Your task to perform on an android device: Add "lenovo thinkpad" to the cart on costco.com, then select checkout. Image 0: 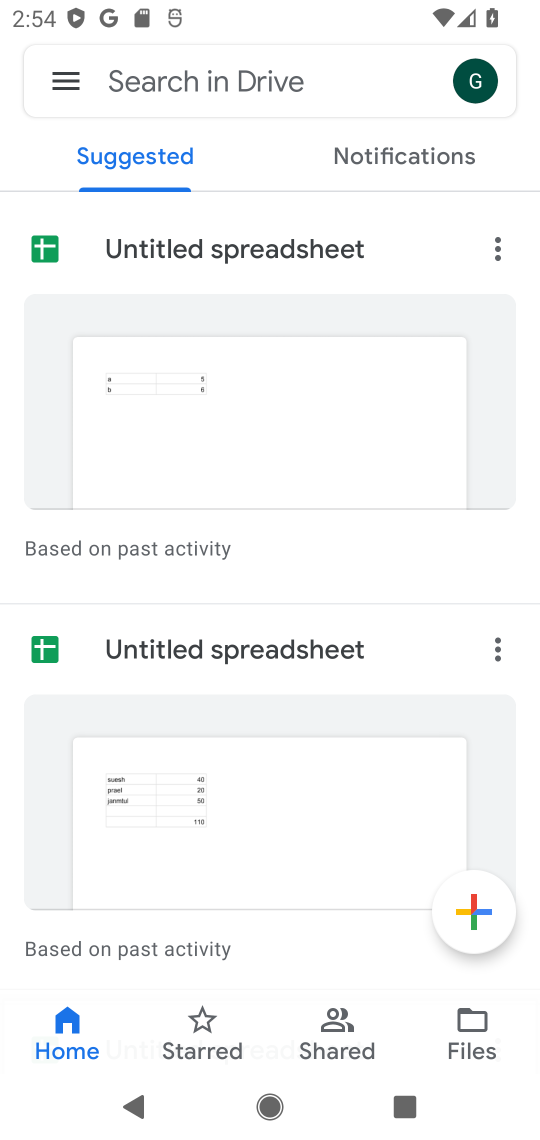
Step 0: press home button
Your task to perform on an android device: Add "lenovo thinkpad" to the cart on costco.com, then select checkout. Image 1: 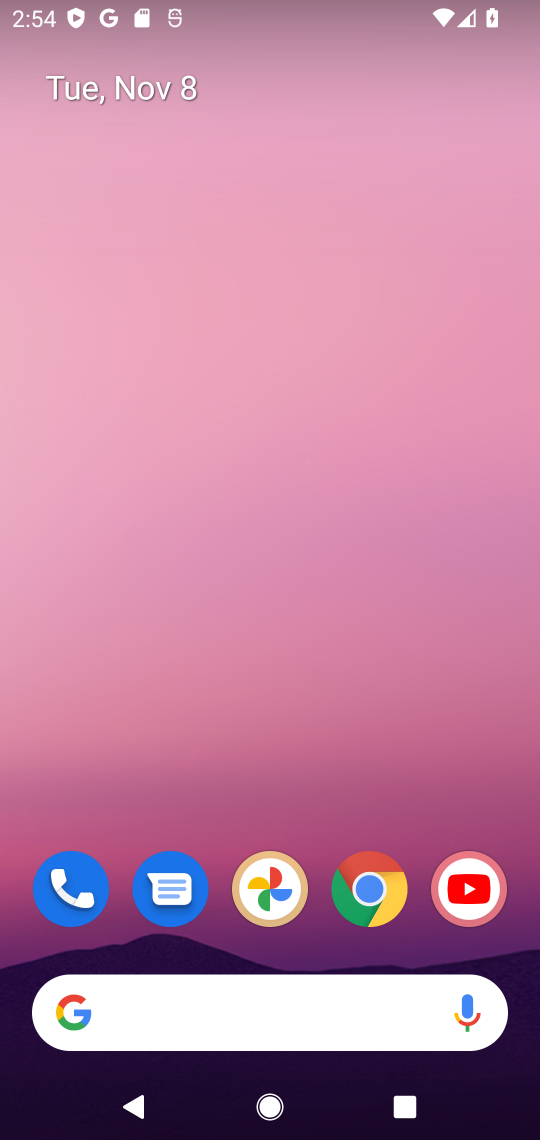
Step 1: click (375, 900)
Your task to perform on an android device: Add "lenovo thinkpad" to the cart on costco.com, then select checkout. Image 2: 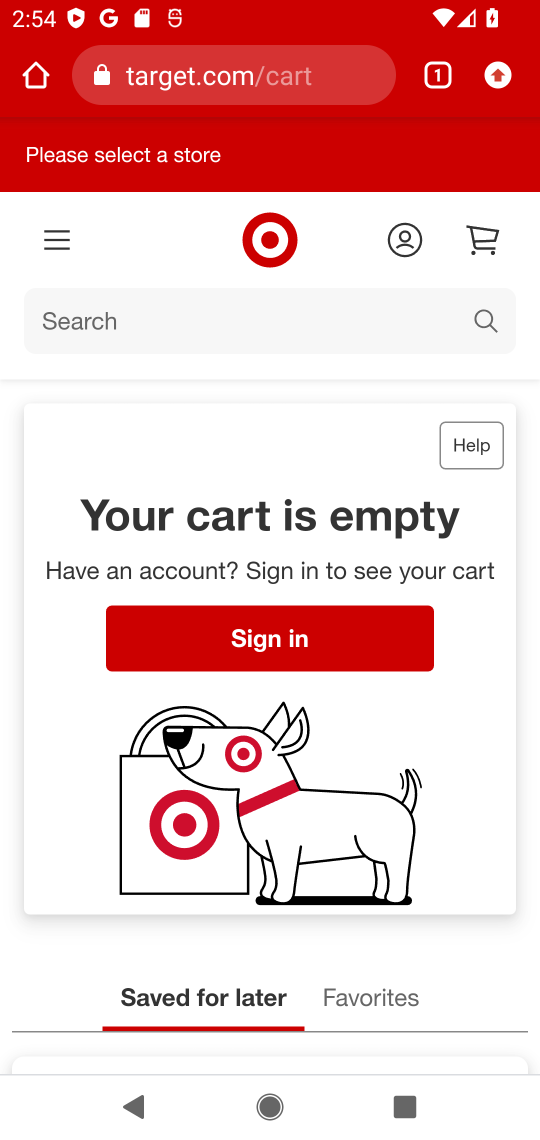
Step 2: click (200, 83)
Your task to perform on an android device: Add "lenovo thinkpad" to the cart on costco.com, then select checkout. Image 3: 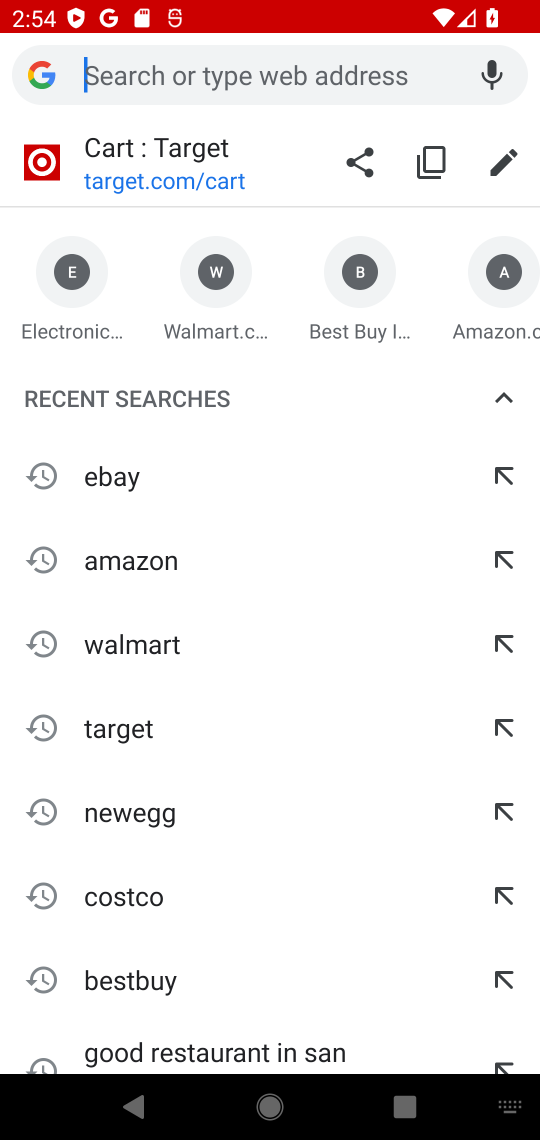
Step 3: type "costco.com"
Your task to perform on an android device: Add "lenovo thinkpad" to the cart on costco.com, then select checkout. Image 4: 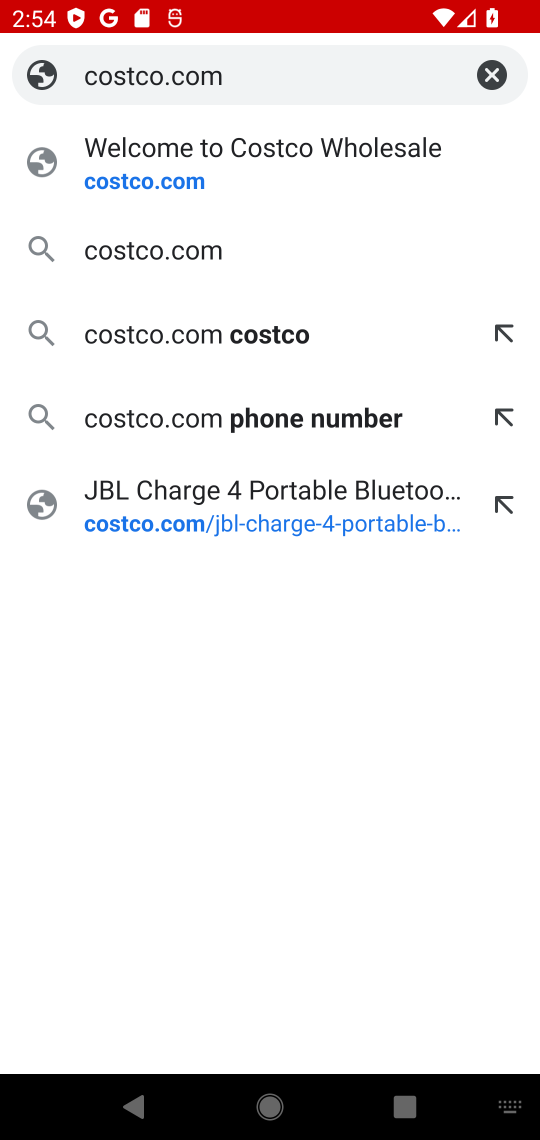
Step 4: click (126, 185)
Your task to perform on an android device: Add "lenovo thinkpad" to the cart on costco.com, then select checkout. Image 5: 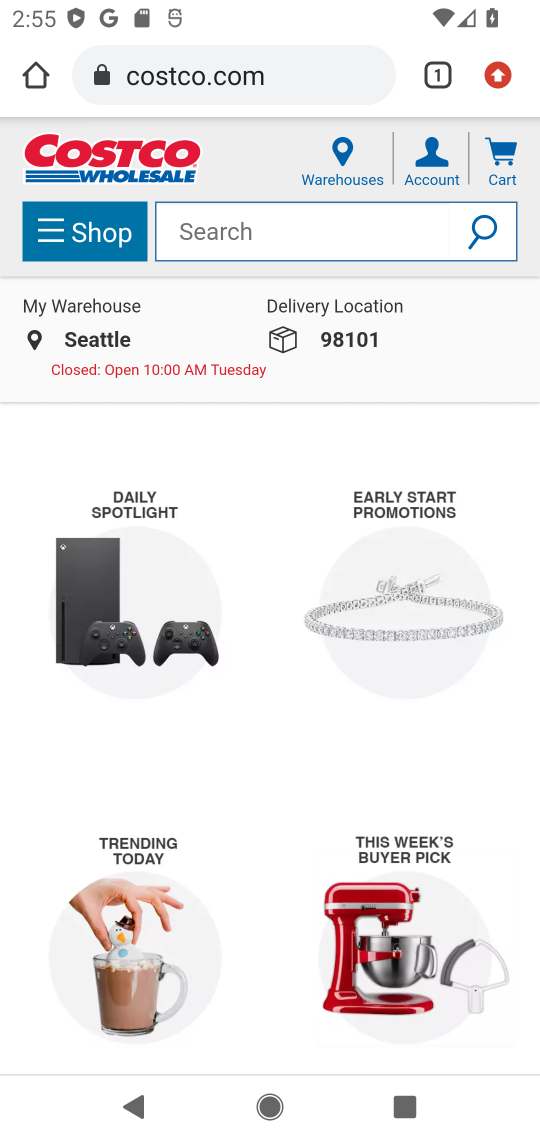
Step 5: click (226, 229)
Your task to perform on an android device: Add "lenovo thinkpad" to the cart on costco.com, then select checkout. Image 6: 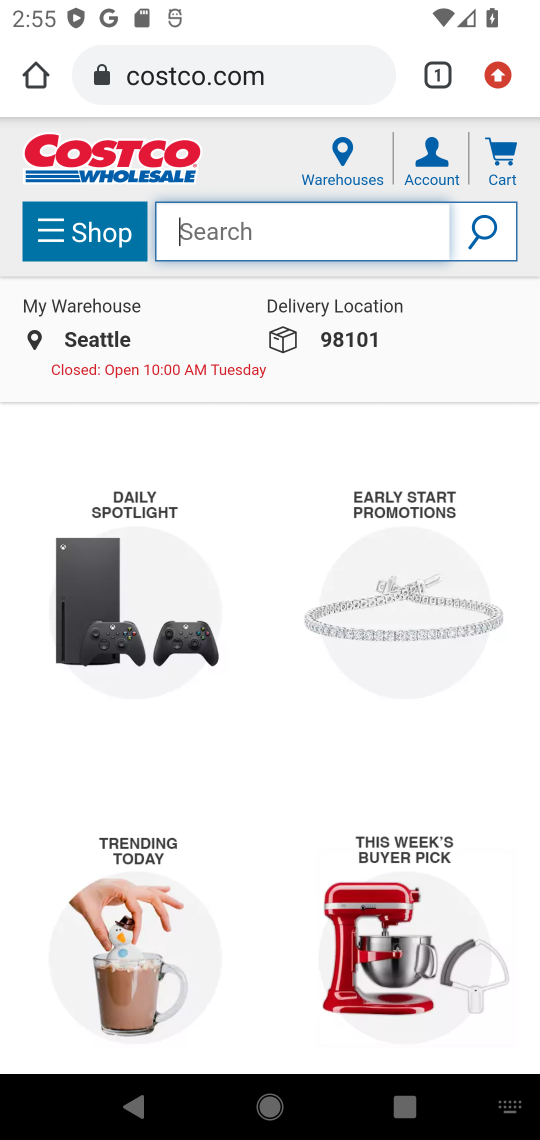
Step 6: type "lenovo thinkpad"
Your task to perform on an android device: Add "lenovo thinkpad" to the cart on costco.com, then select checkout. Image 7: 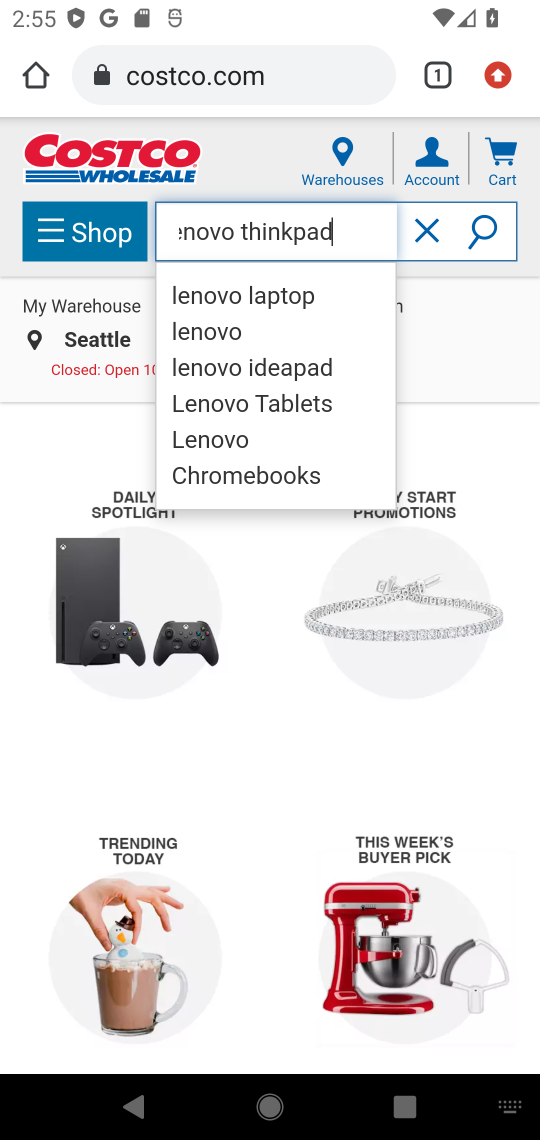
Step 7: click (484, 244)
Your task to perform on an android device: Add "lenovo thinkpad" to the cart on costco.com, then select checkout. Image 8: 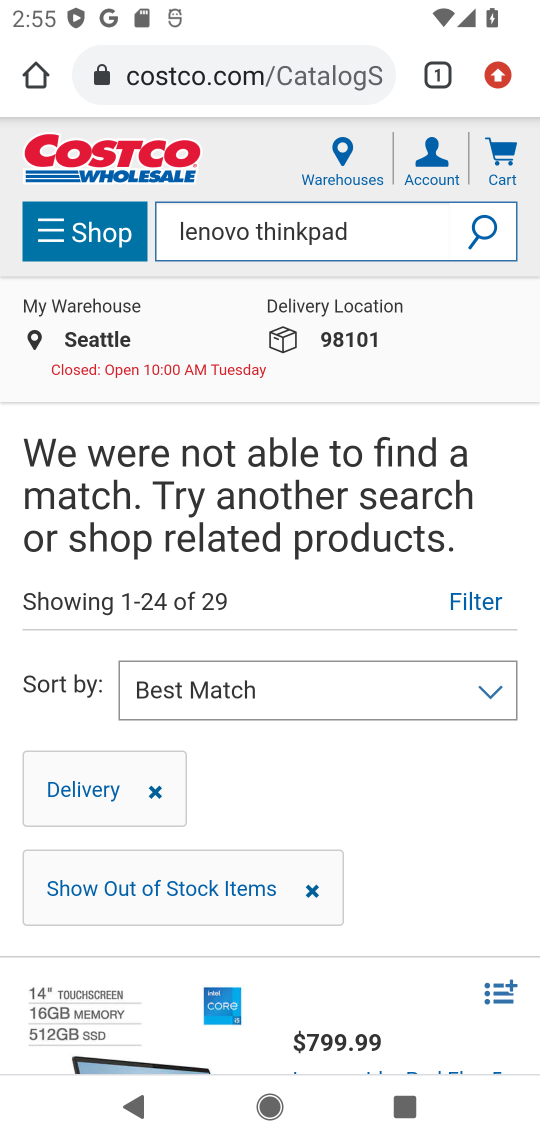
Step 8: task complete